Your task to perform on an android device: Open Youtube and go to the subscriptions tab Image 0: 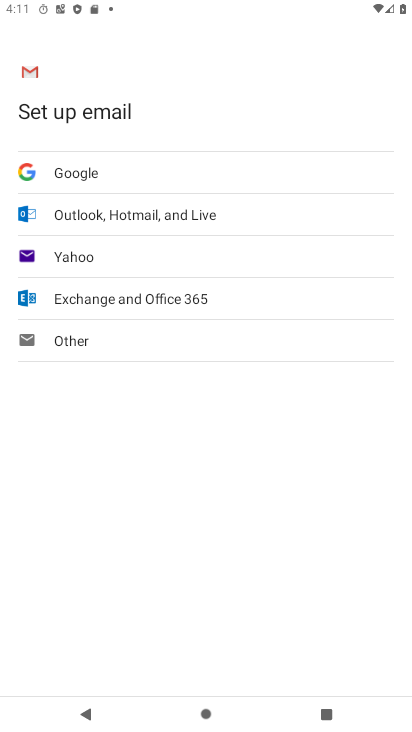
Step 0: press home button
Your task to perform on an android device: Open Youtube and go to the subscriptions tab Image 1: 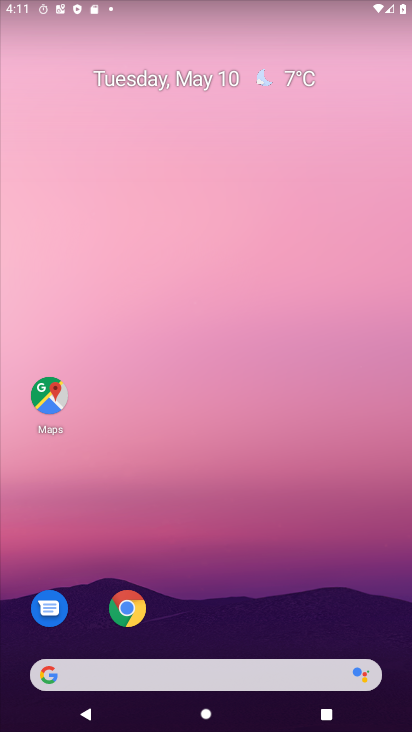
Step 1: drag from (300, 591) to (245, 94)
Your task to perform on an android device: Open Youtube and go to the subscriptions tab Image 2: 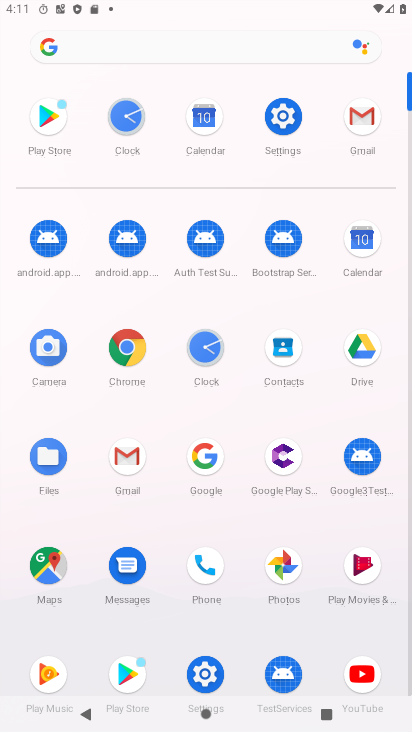
Step 2: click (355, 665)
Your task to perform on an android device: Open Youtube and go to the subscriptions tab Image 3: 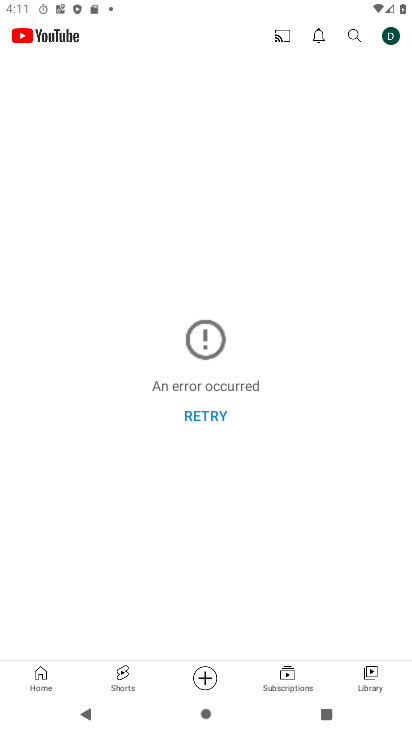
Step 3: click (274, 677)
Your task to perform on an android device: Open Youtube and go to the subscriptions tab Image 4: 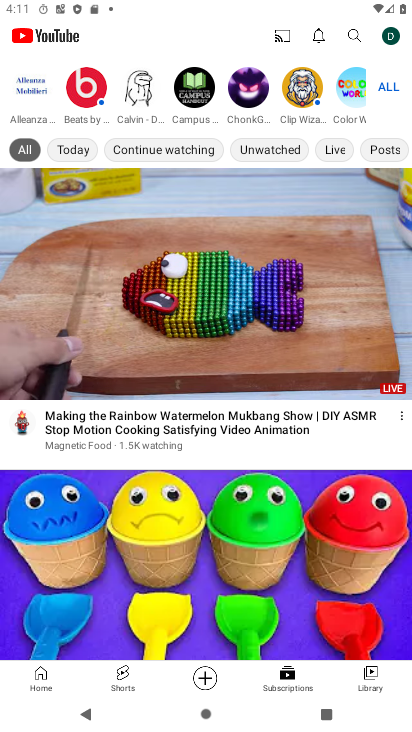
Step 4: task complete